Your task to perform on an android device: What's the news in Venezuela? Image 0: 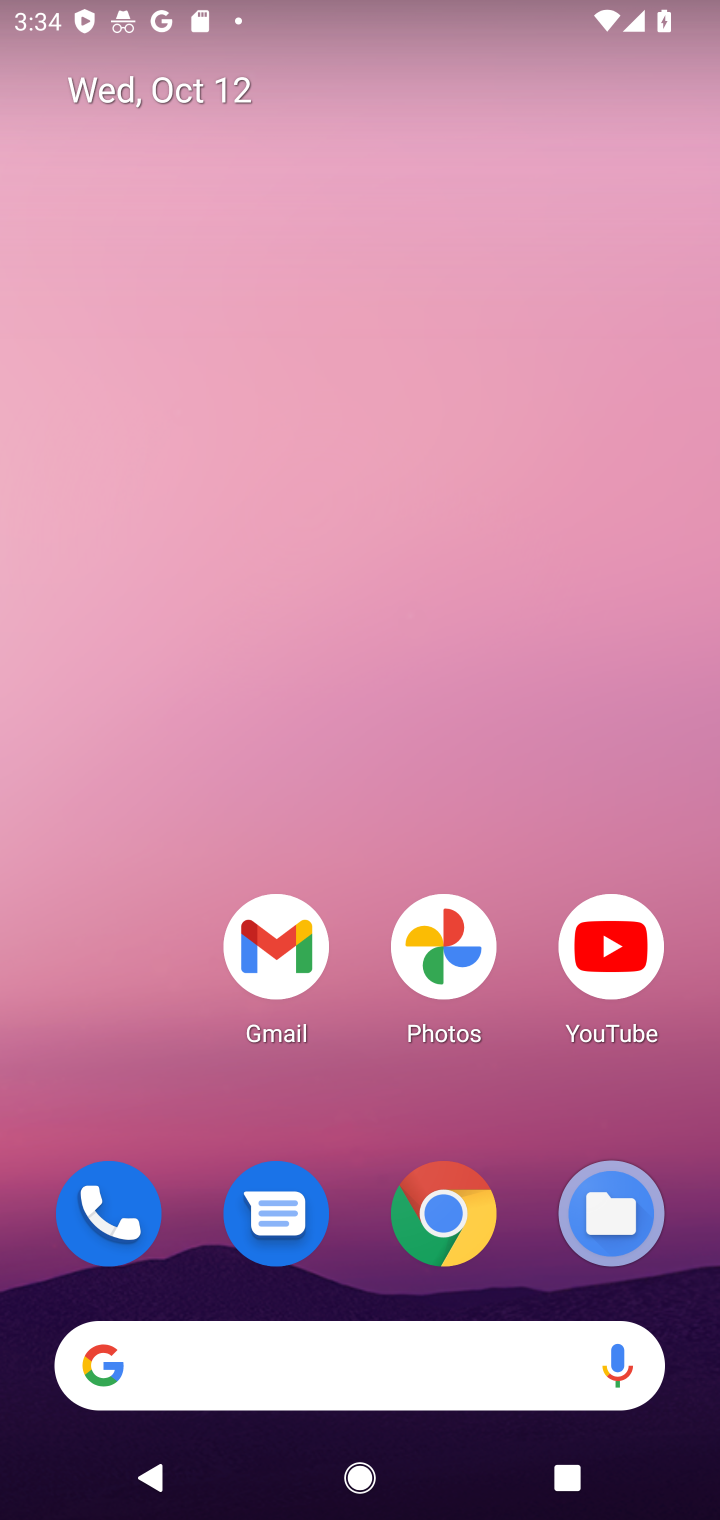
Step 0: click (321, 1335)
Your task to perform on an android device: What's the news in Venezuela? Image 1: 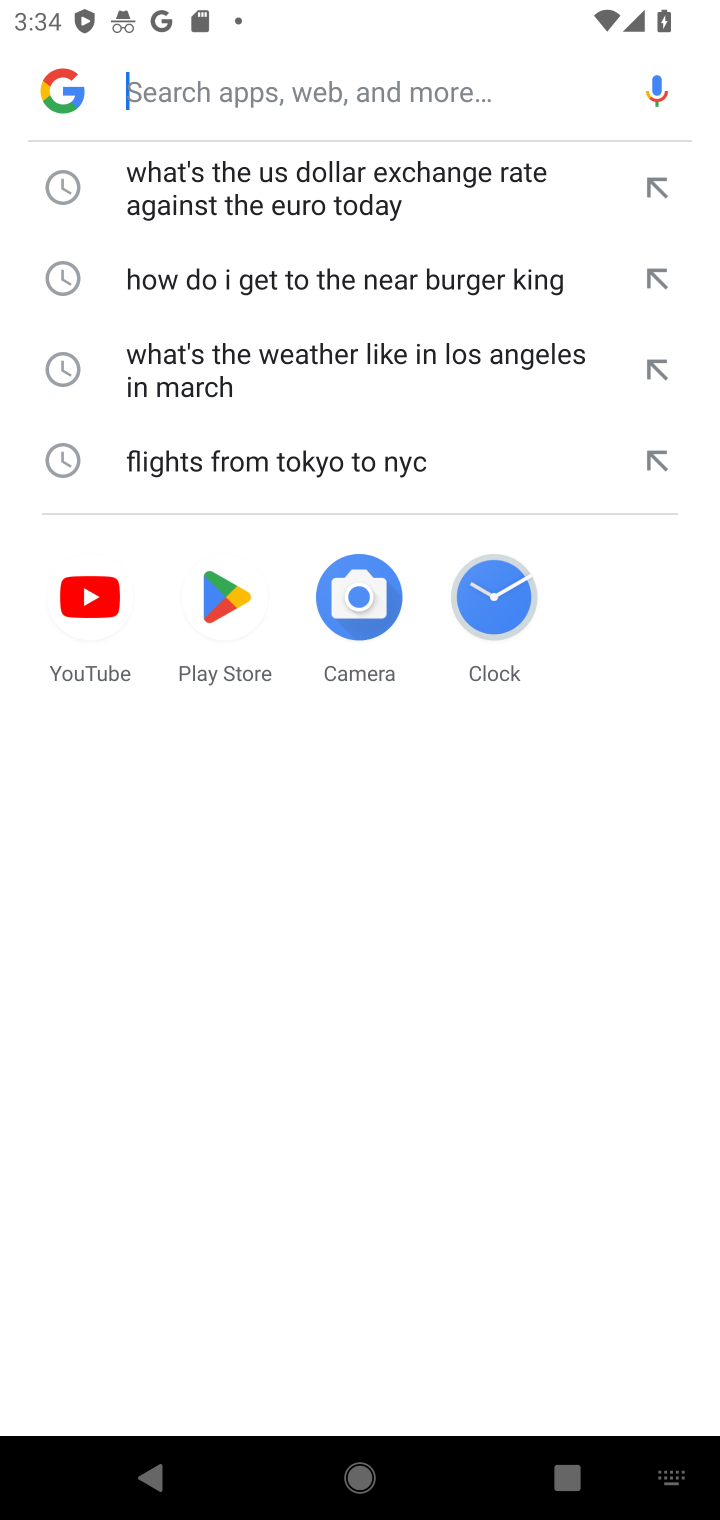
Step 1: click (275, 77)
Your task to perform on an android device: What's the news in Venezuela? Image 2: 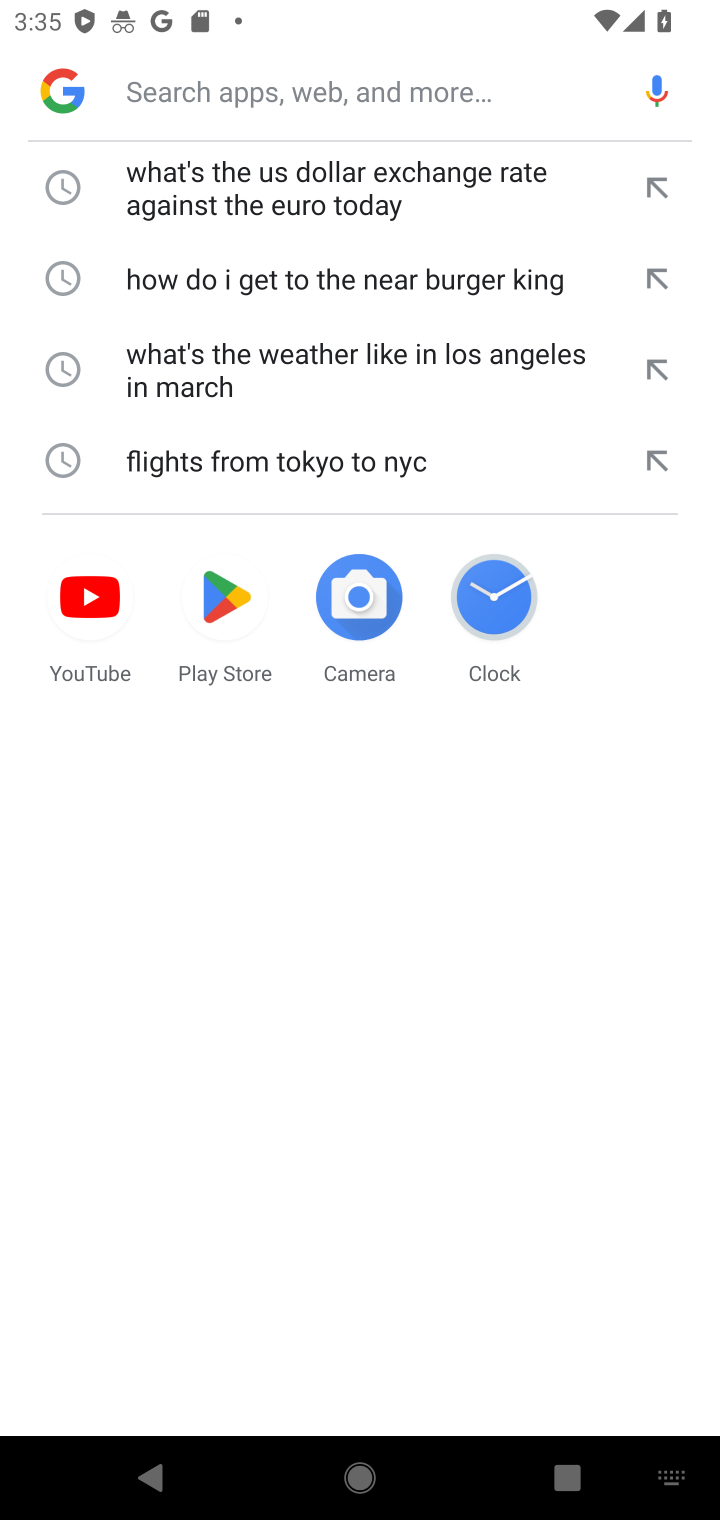
Step 2: type "What's the news in Venezuela?"
Your task to perform on an android device: What's the news in Venezuela? Image 3: 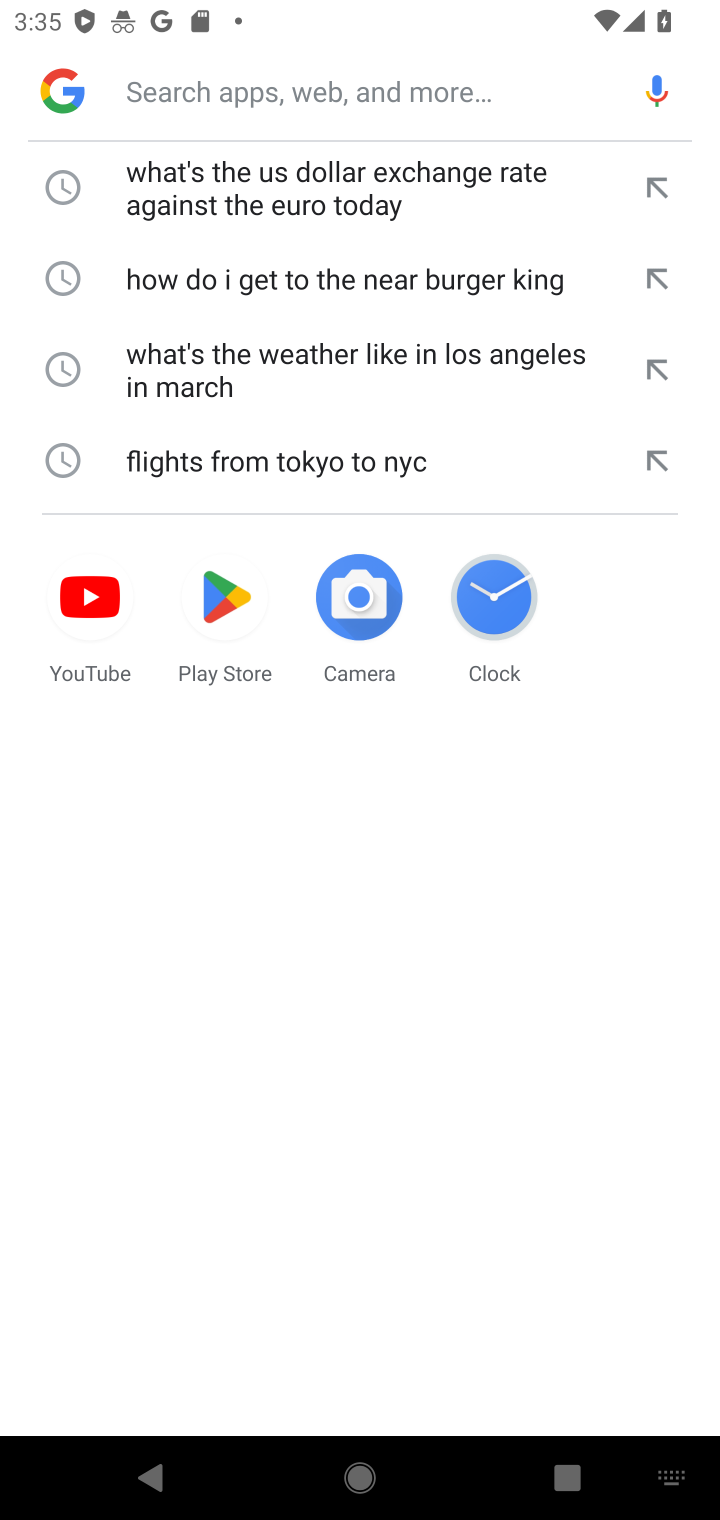
Step 3: click (577, 1055)
Your task to perform on an android device: What's the news in Venezuela? Image 4: 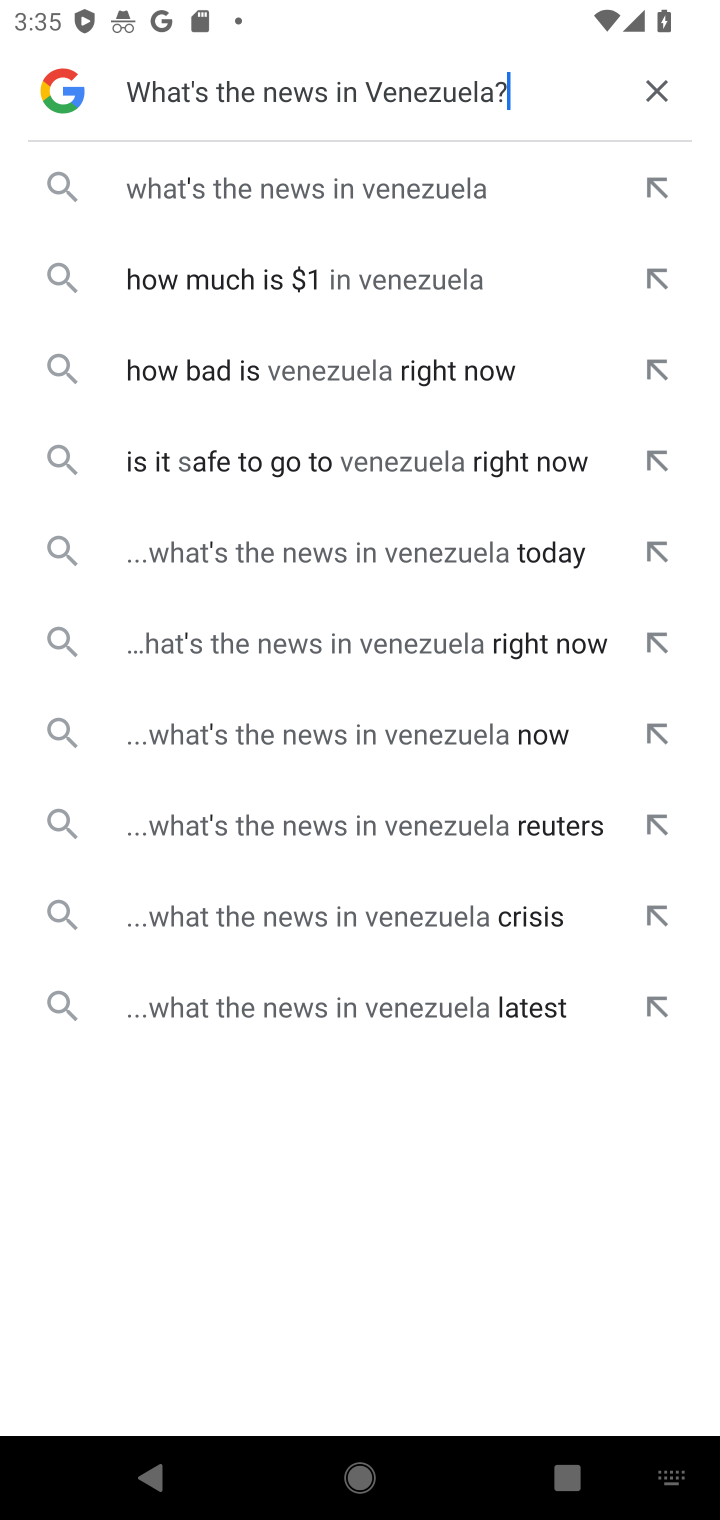
Step 4: click (225, 153)
Your task to perform on an android device: What's the news in Venezuela? Image 5: 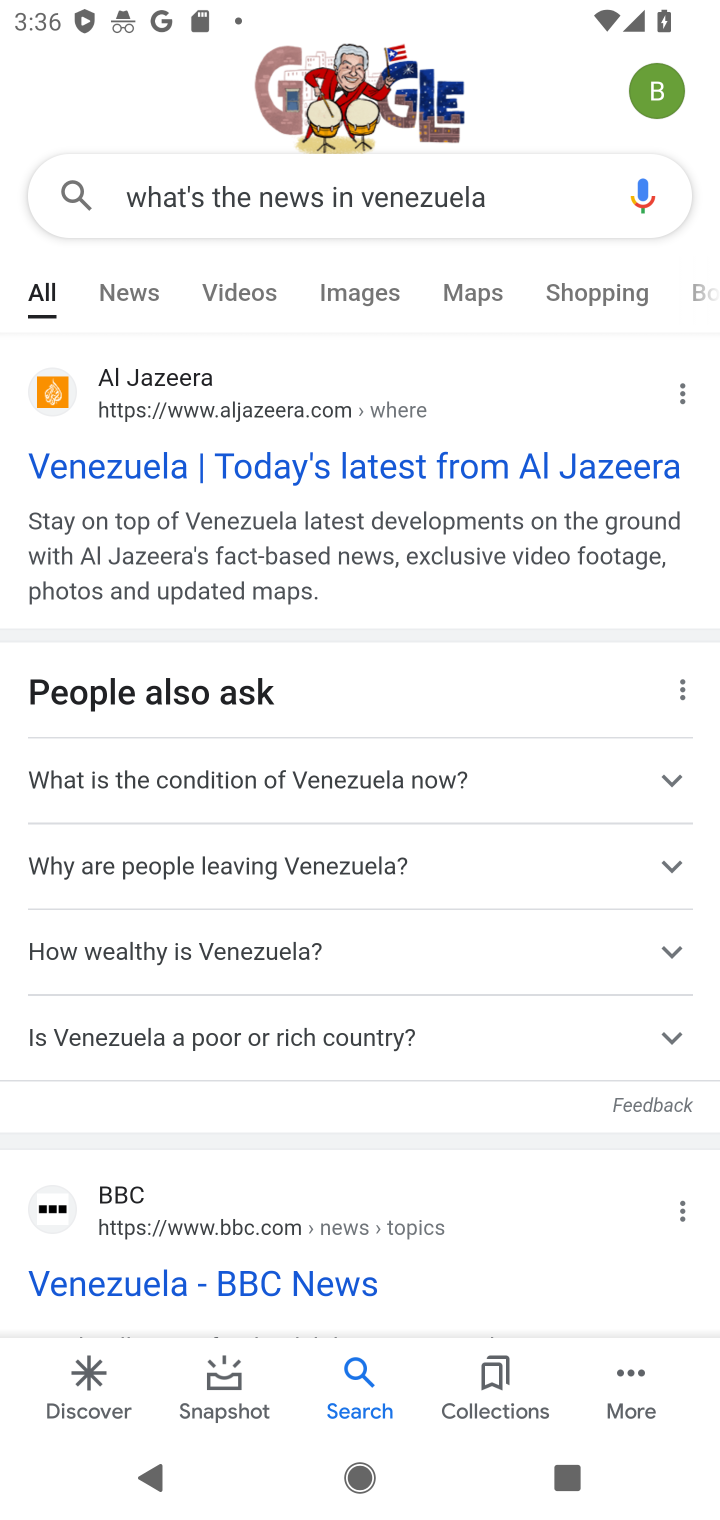
Step 5: click (237, 439)
Your task to perform on an android device: What's the news in Venezuela? Image 6: 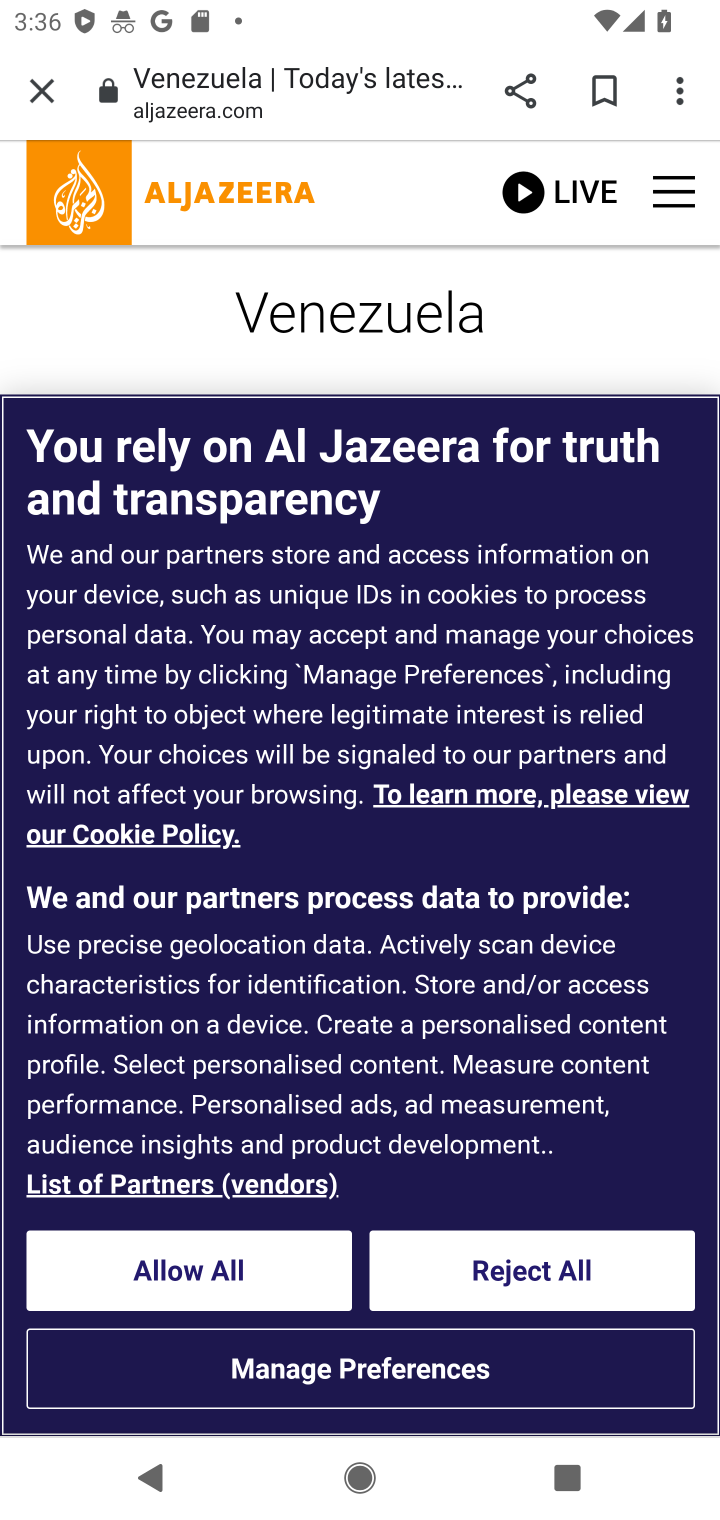
Step 6: task complete